Your task to perform on an android device: What's the top post on reddit today? Image 0: 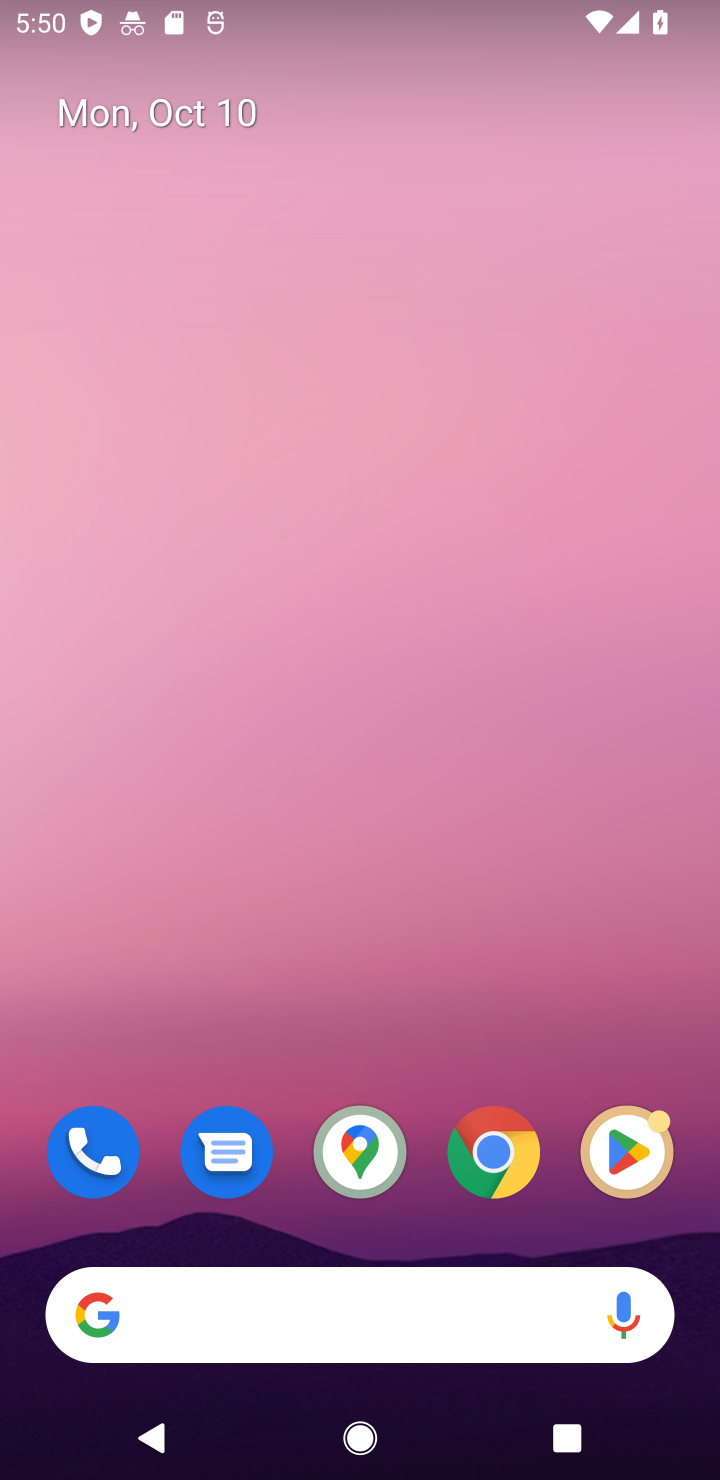
Step 0: click (503, 1150)
Your task to perform on an android device: What's the top post on reddit today? Image 1: 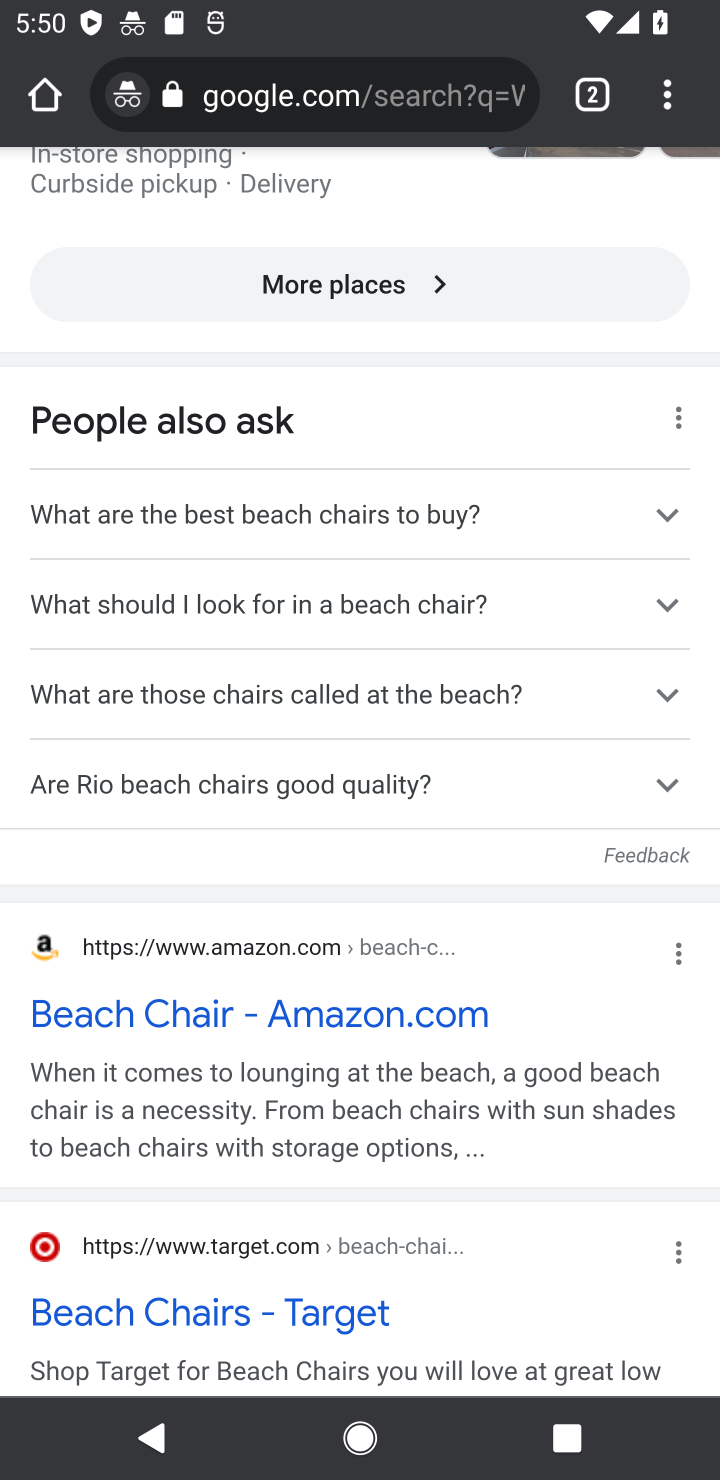
Step 1: click (425, 105)
Your task to perform on an android device: What's the top post on reddit today? Image 2: 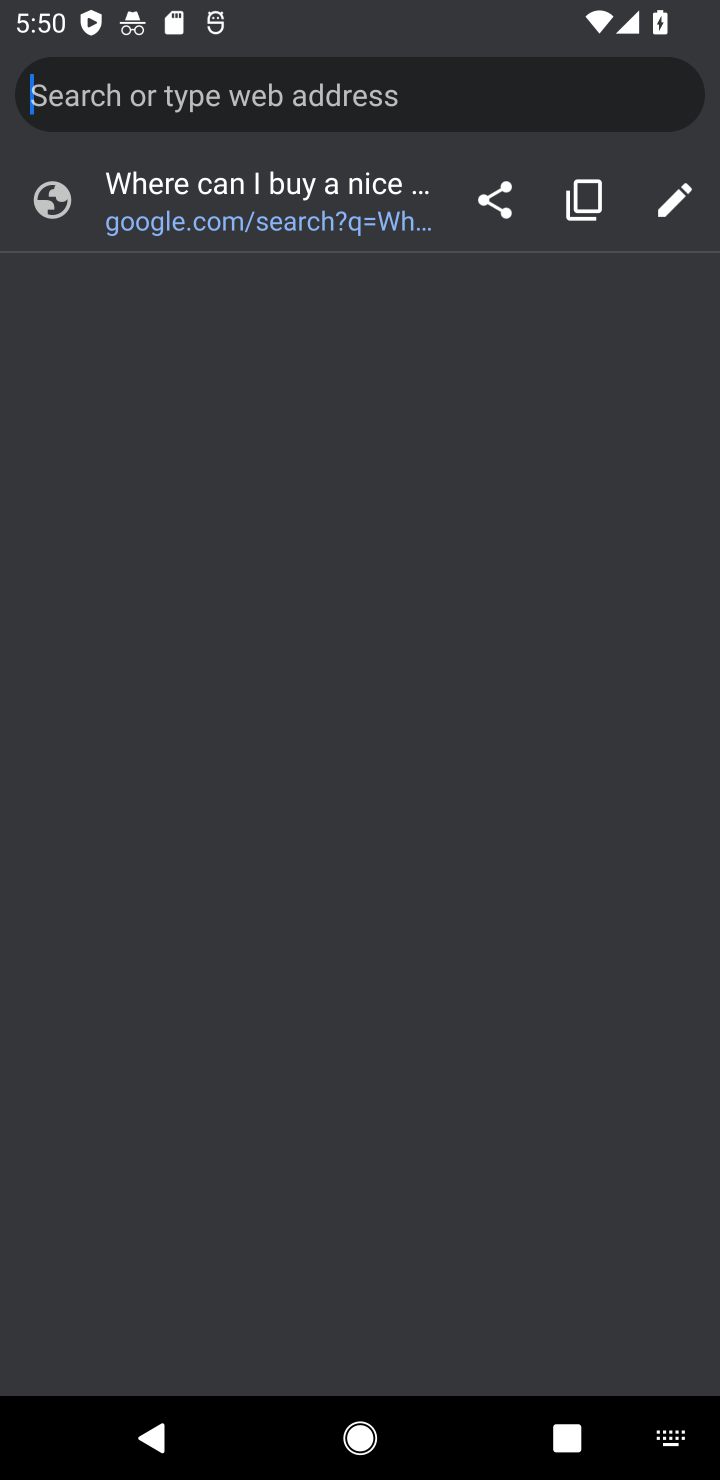
Step 2: type "What's the top post on reddit today?"
Your task to perform on an android device: What's the top post on reddit today? Image 3: 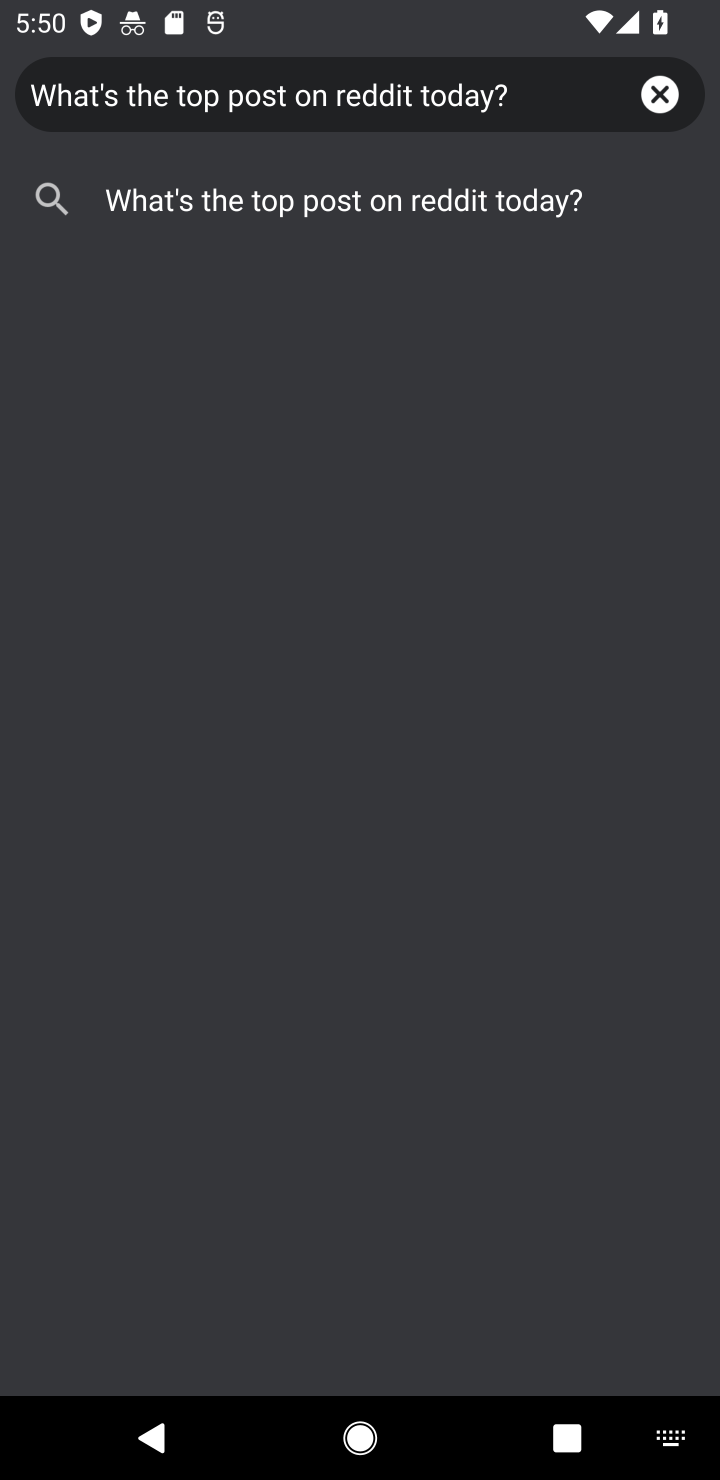
Step 3: click (356, 208)
Your task to perform on an android device: What's the top post on reddit today? Image 4: 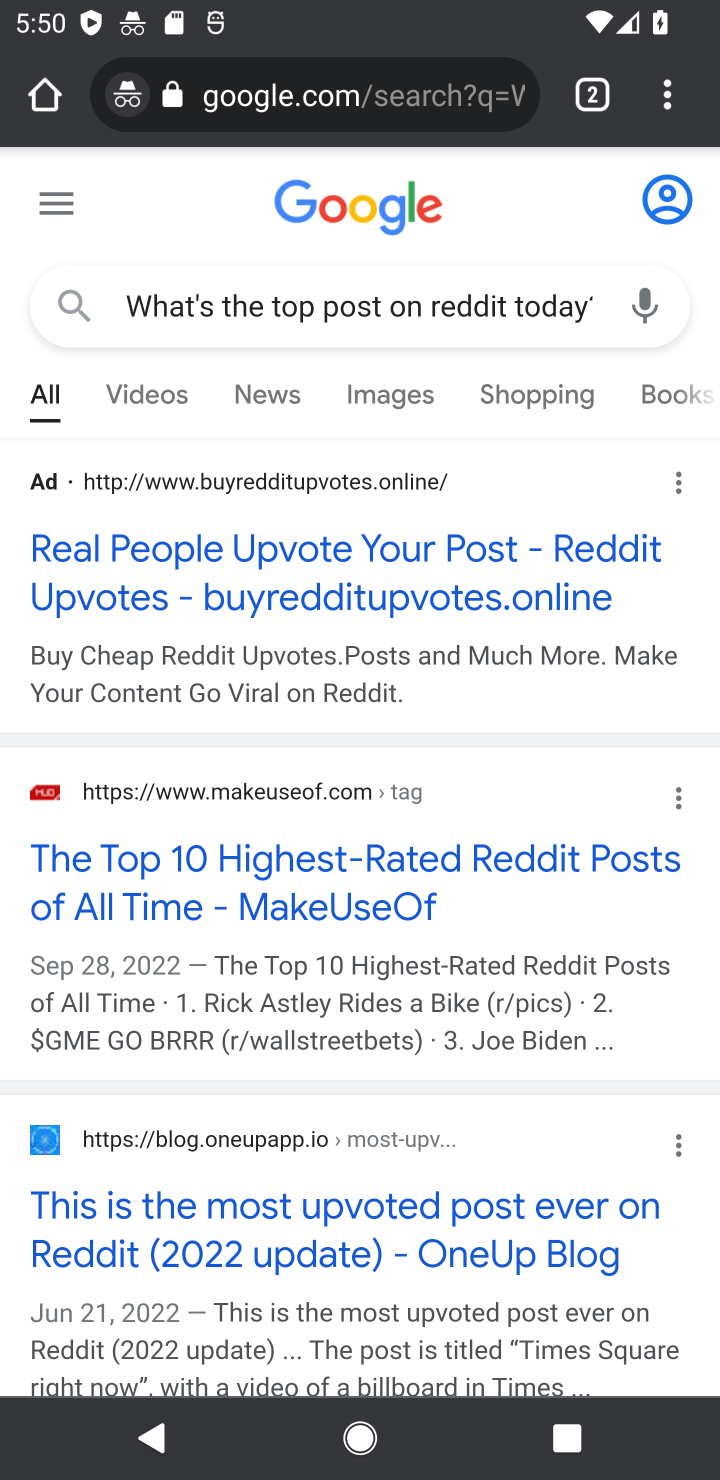
Step 4: drag from (326, 1060) to (397, 889)
Your task to perform on an android device: What's the top post on reddit today? Image 5: 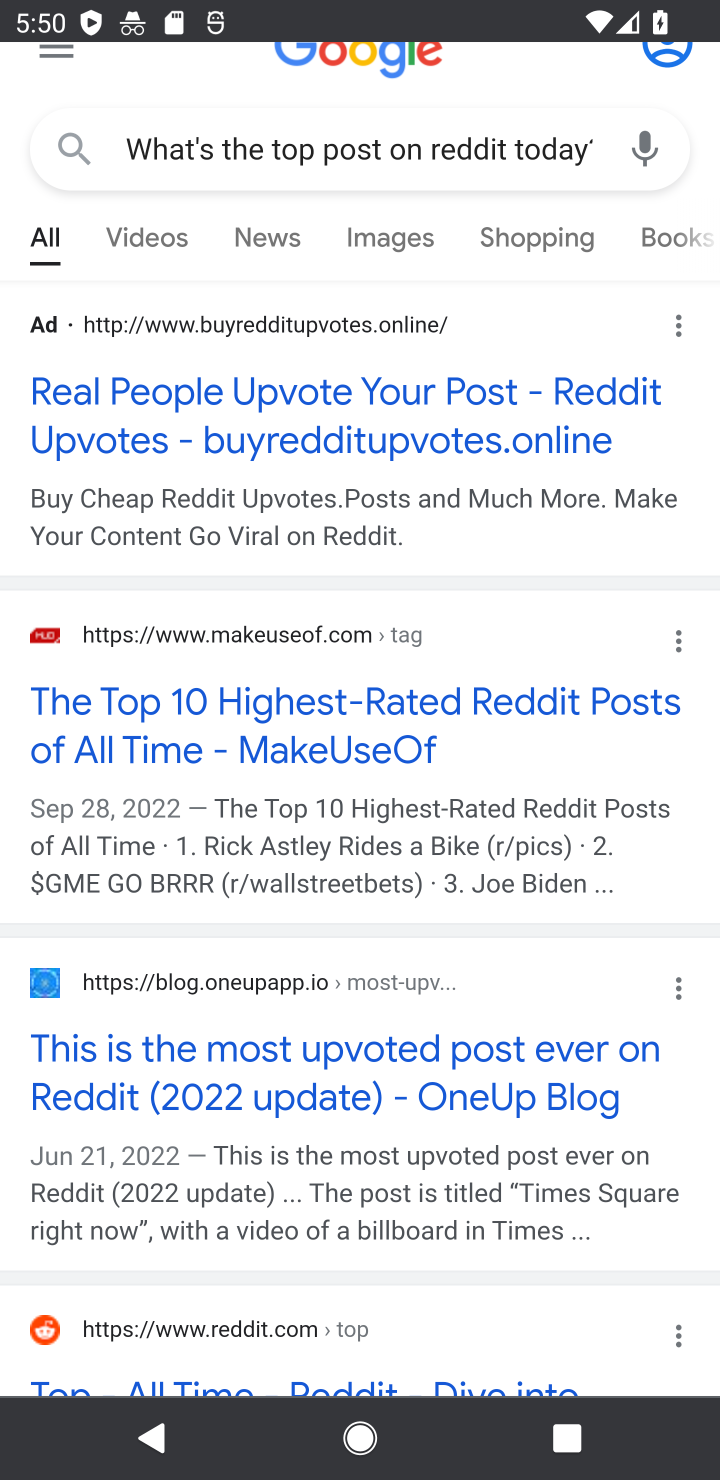
Step 5: click (318, 753)
Your task to perform on an android device: What's the top post on reddit today? Image 6: 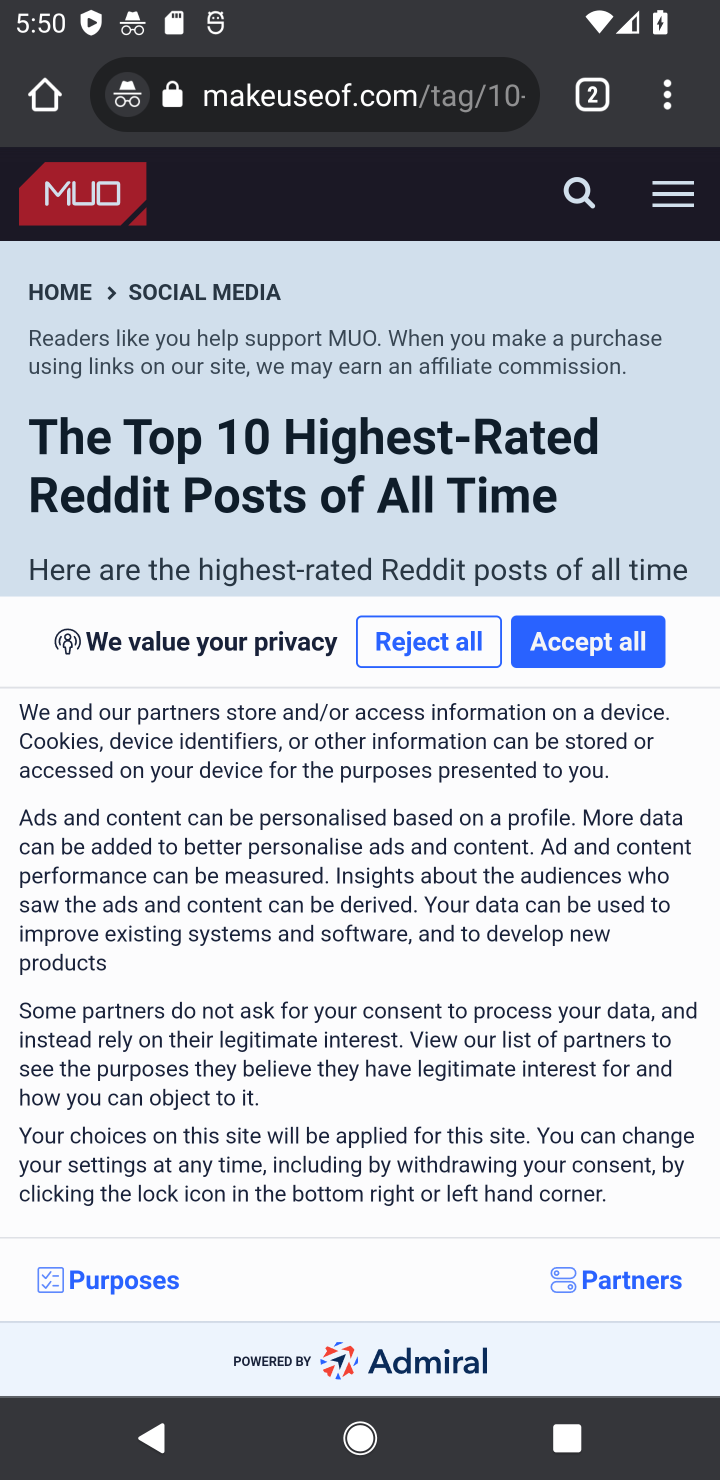
Step 6: drag from (320, 1274) to (420, 785)
Your task to perform on an android device: What's the top post on reddit today? Image 7: 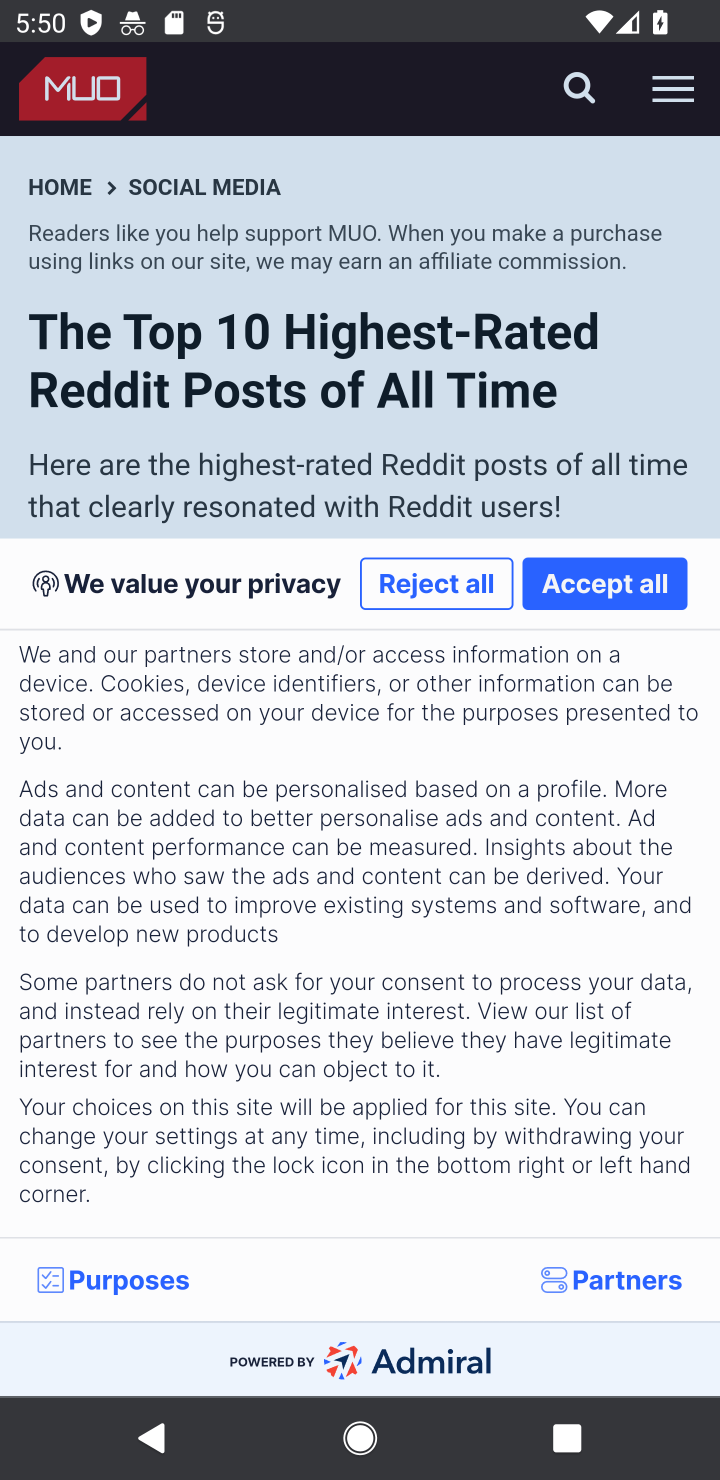
Step 7: click (597, 571)
Your task to perform on an android device: What's the top post on reddit today? Image 8: 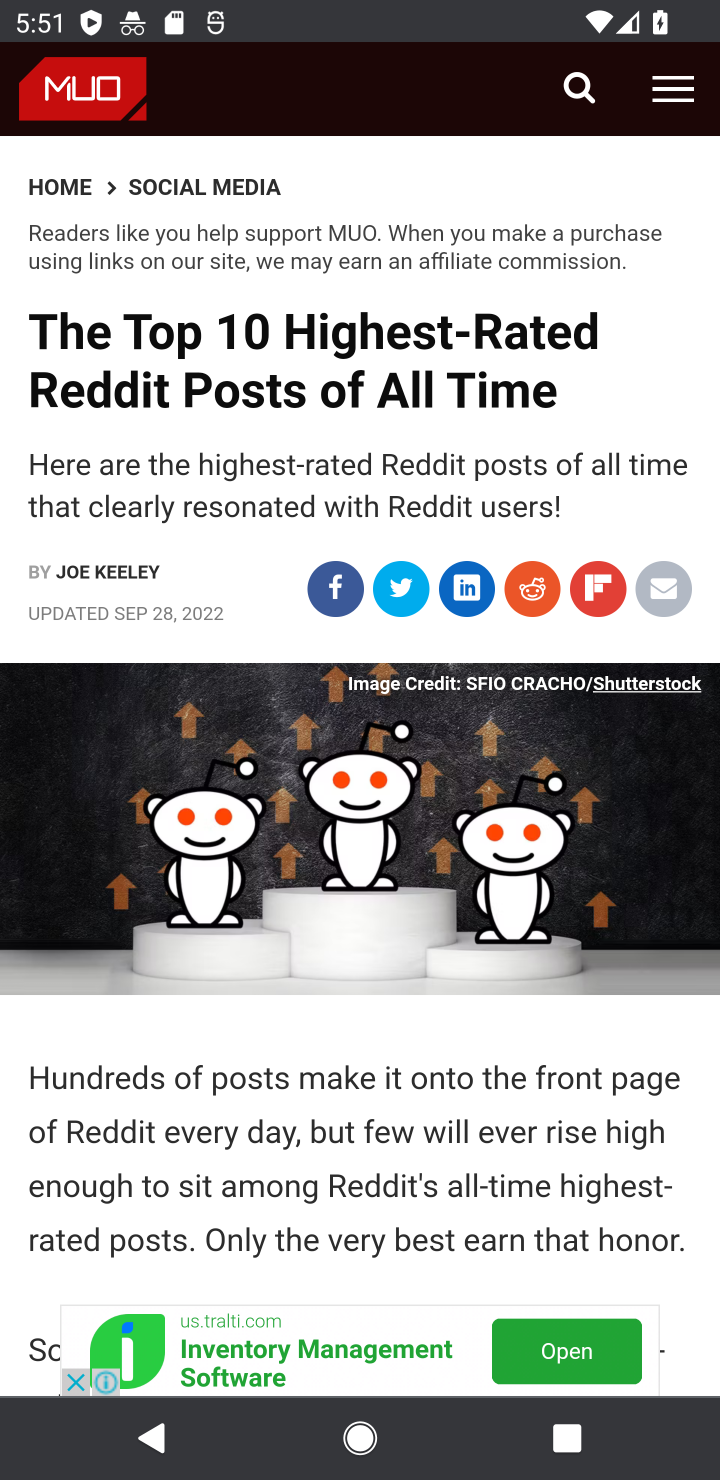
Step 8: task complete